Your task to perform on an android device: Open calendar and show me the fourth week of next month Image 0: 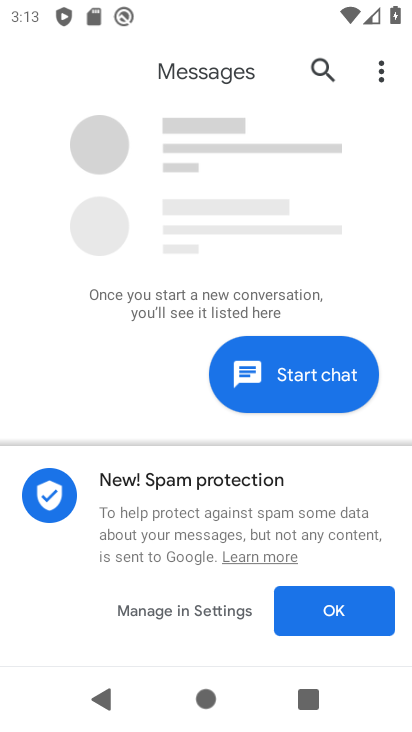
Step 0: press home button
Your task to perform on an android device: Open calendar and show me the fourth week of next month Image 1: 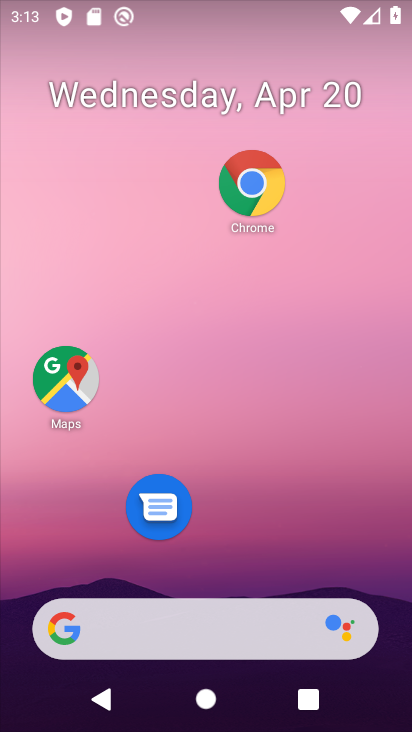
Step 1: drag from (201, 568) to (190, 196)
Your task to perform on an android device: Open calendar and show me the fourth week of next month Image 2: 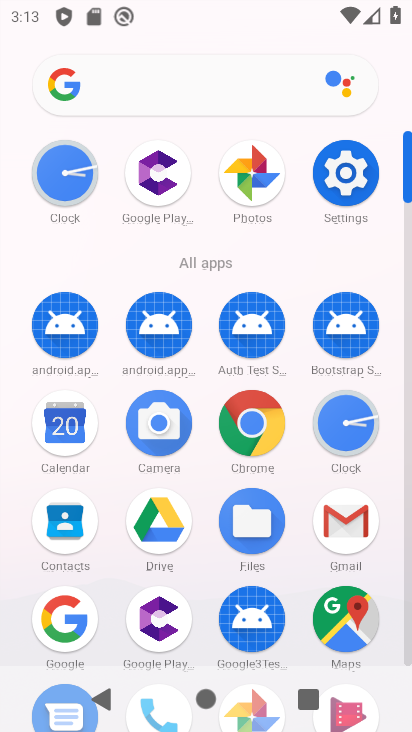
Step 2: click (74, 445)
Your task to perform on an android device: Open calendar and show me the fourth week of next month Image 3: 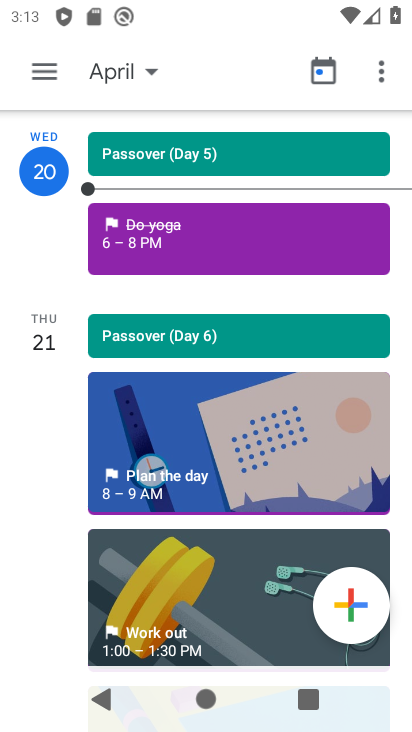
Step 3: click (142, 79)
Your task to perform on an android device: Open calendar and show me the fourth week of next month Image 4: 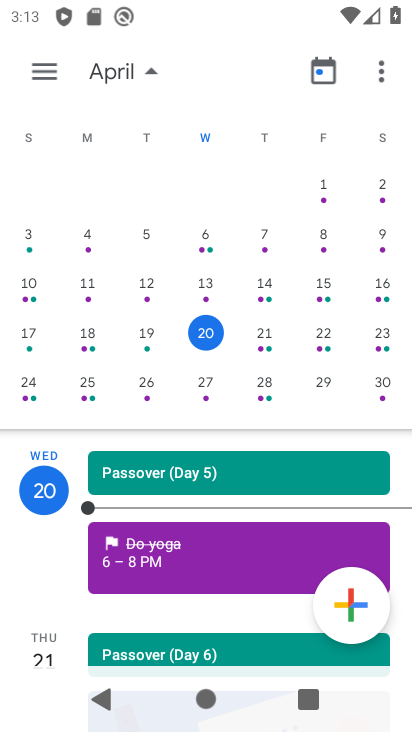
Step 4: drag from (341, 286) to (6, 279)
Your task to perform on an android device: Open calendar and show me the fourth week of next month Image 5: 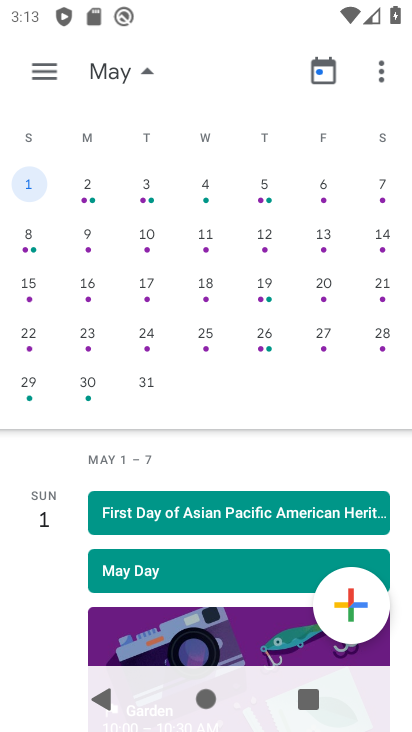
Step 5: click (88, 335)
Your task to perform on an android device: Open calendar and show me the fourth week of next month Image 6: 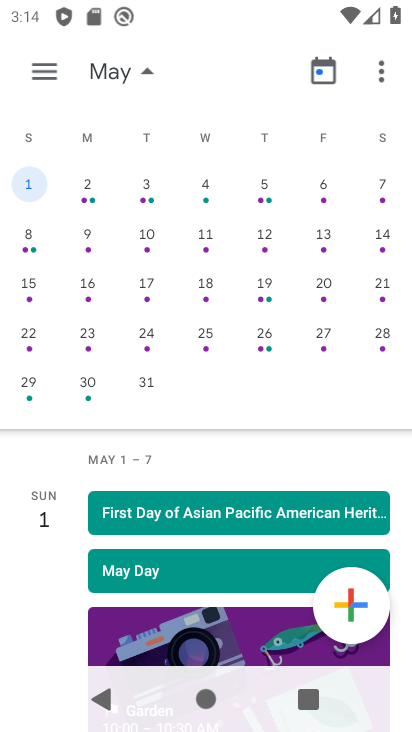
Step 6: click (88, 335)
Your task to perform on an android device: Open calendar and show me the fourth week of next month Image 7: 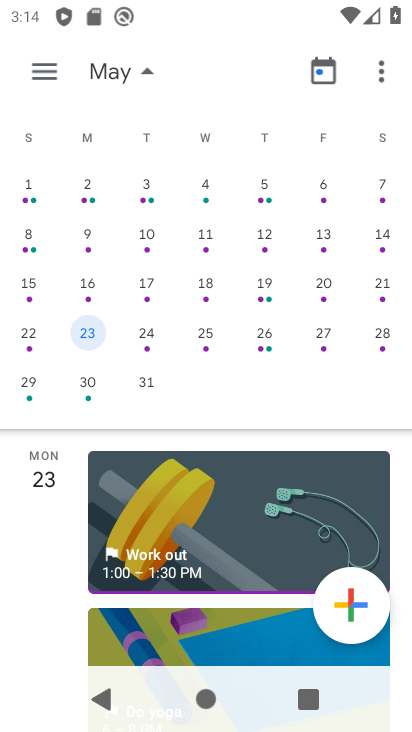
Step 7: task complete